Your task to perform on an android device: Open my contact list Image 0: 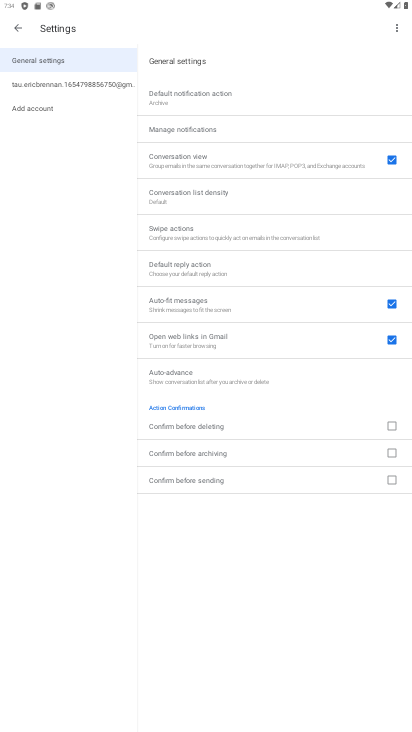
Step 0: drag from (155, 650) to (325, 155)
Your task to perform on an android device: Open my contact list Image 1: 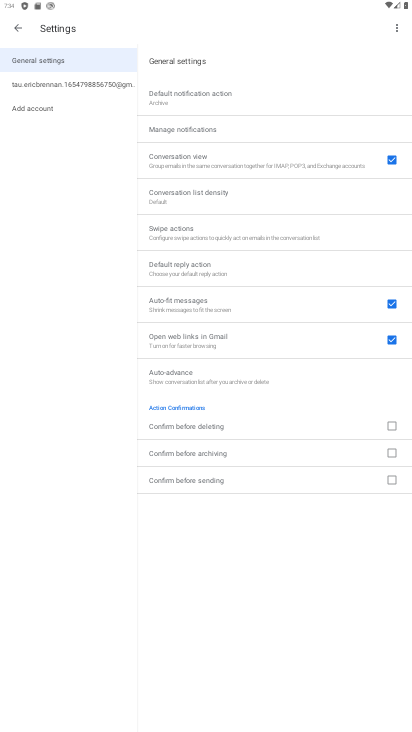
Step 1: press home button
Your task to perform on an android device: Open my contact list Image 2: 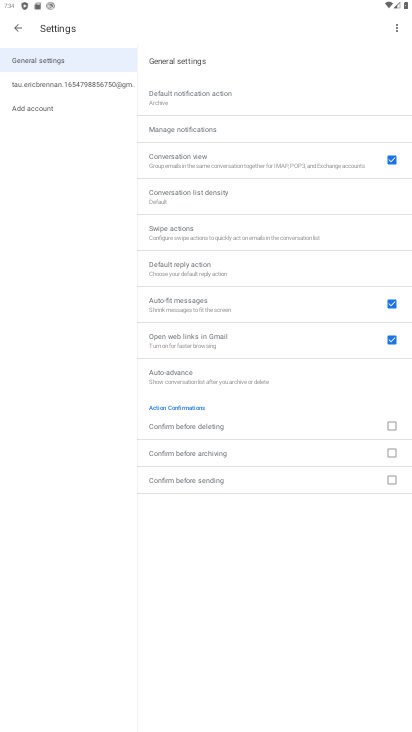
Step 2: drag from (162, 459) to (288, 60)
Your task to perform on an android device: Open my contact list Image 3: 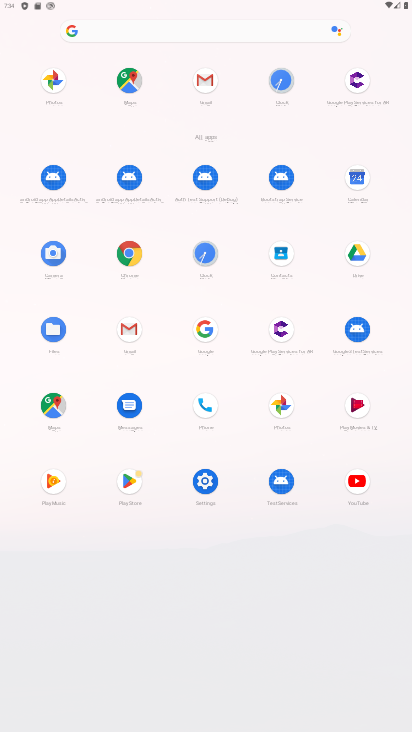
Step 3: click (278, 259)
Your task to perform on an android device: Open my contact list Image 4: 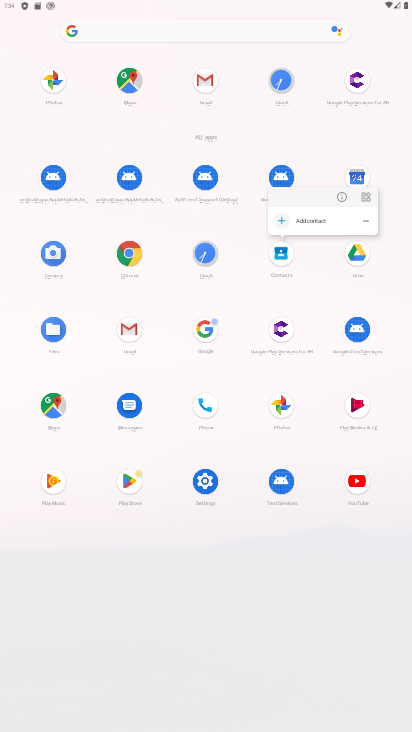
Step 4: click (338, 190)
Your task to perform on an android device: Open my contact list Image 5: 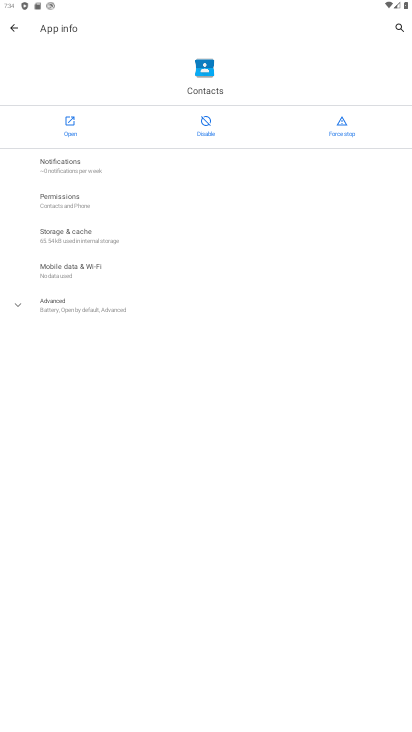
Step 5: click (65, 132)
Your task to perform on an android device: Open my contact list Image 6: 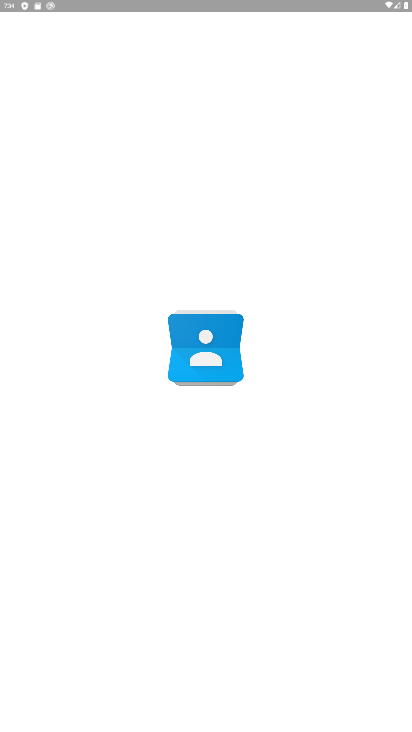
Step 6: drag from (277, 386) to (292, 63)
Your task to perform on an android device: Open my contact list Image 7: 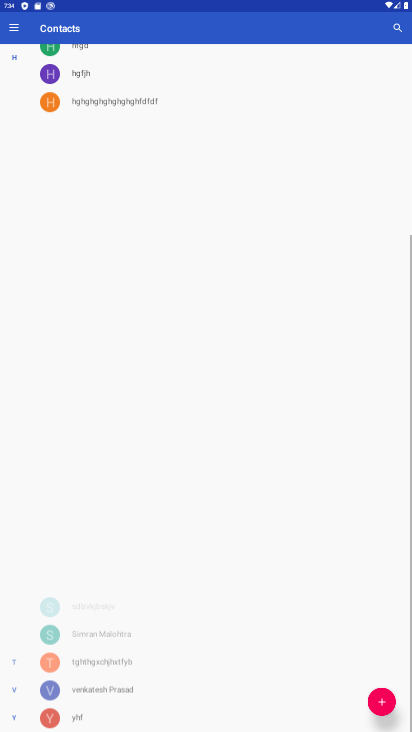
Step 7: click (248, 164)
Your task to perform on an android device: Open my contact list Image 8: 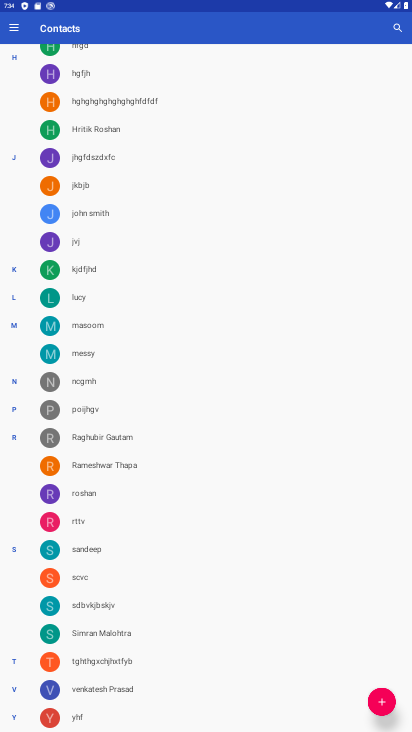
Step 8: task complete